Your task to perform on an android device: Go to settings Image 0: 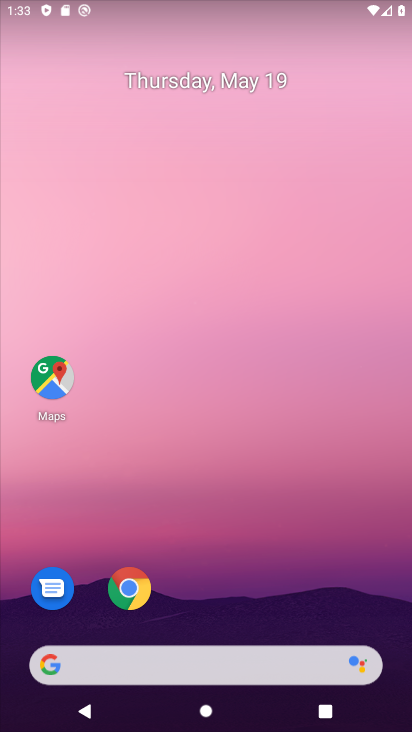
Step 0: drag from (237, 585) to (193, 101)
Your task to perform on an android device: Go to settings Image 1: 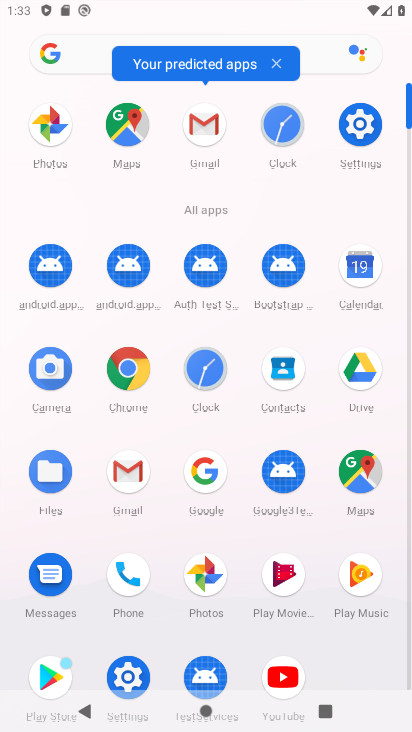
Step 1: click (361, 125)
Your task to perform on an android device: Go to settings Image 2: 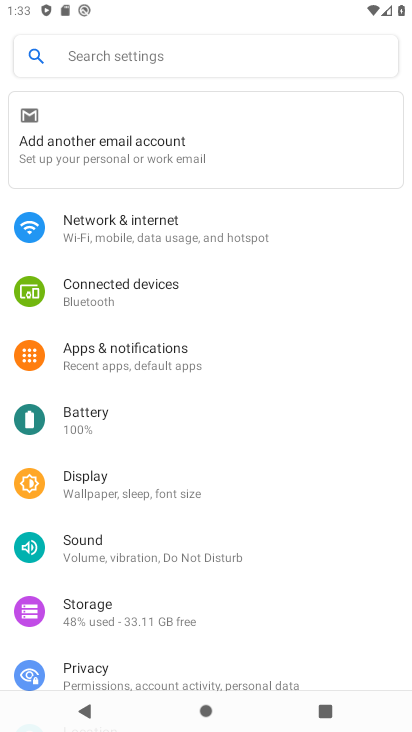
Step 2: task complete